Your task to perform on an android device: Open the stopwatch Image 0: 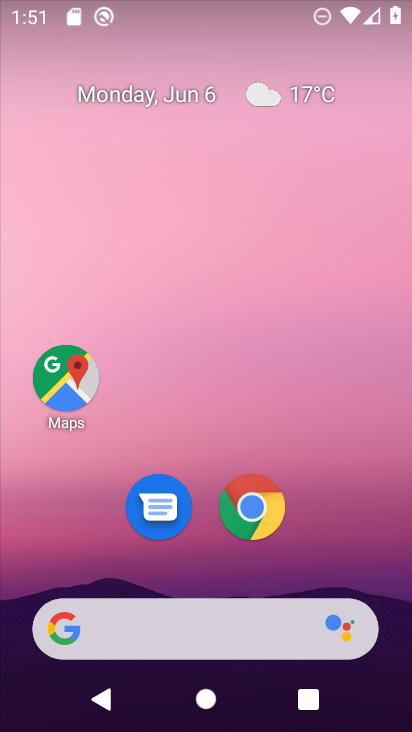
Step 0: drag from (284, 572) to (240, 274)
Your task to perform on an android device: Open the stopwatch Image 1: 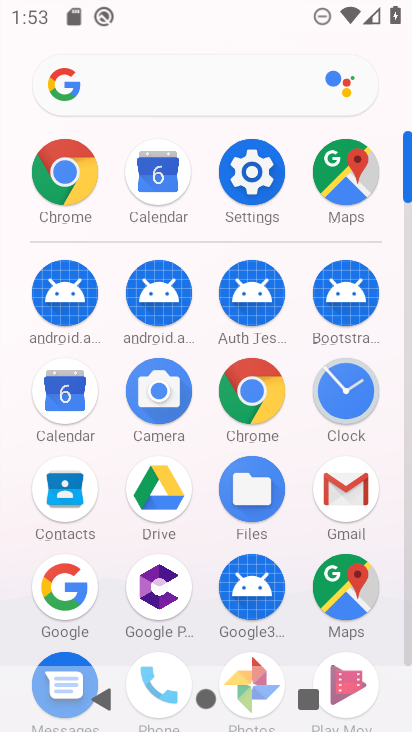
Step 1: click (342, 393)
Your task to perform on an android device: Open the stopwatch Image 2: 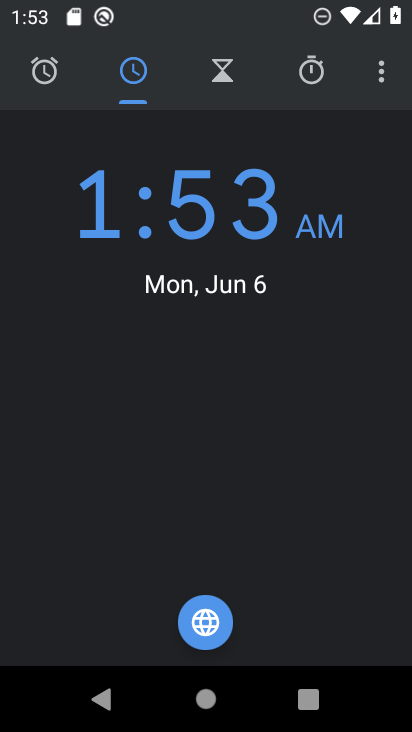
Step 2: click (296, 66)
Your task to perform on an android device: Open the stopwatch Image 3: 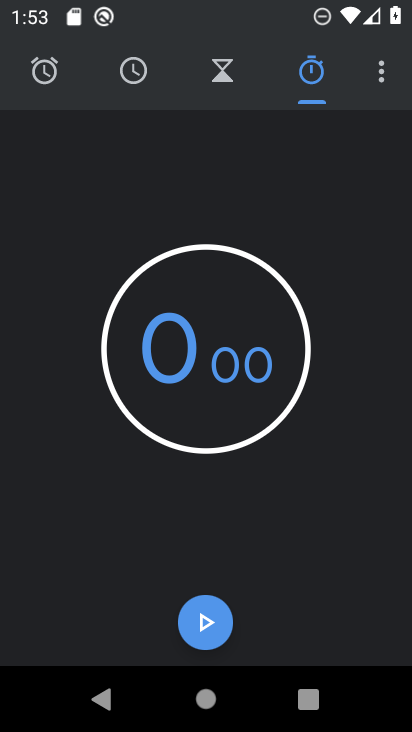
Step 3: click (218, 616)
Your task to perform on an android device: Open the stopwatch Image 4: 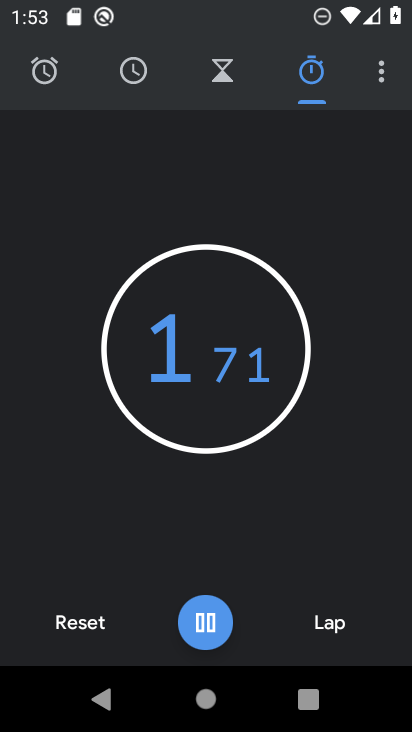
Step 4: task complete